Your task to perform on an android device: turn smart compose on in the gmail app Image 0: 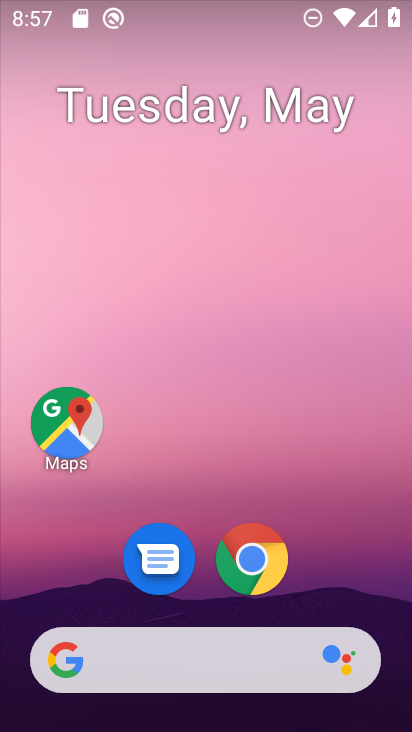
Step 0: drag from (217, 582) to (284, 4)
Your task to perform on an android device: turn smart compose on in the gmail app Image 1: 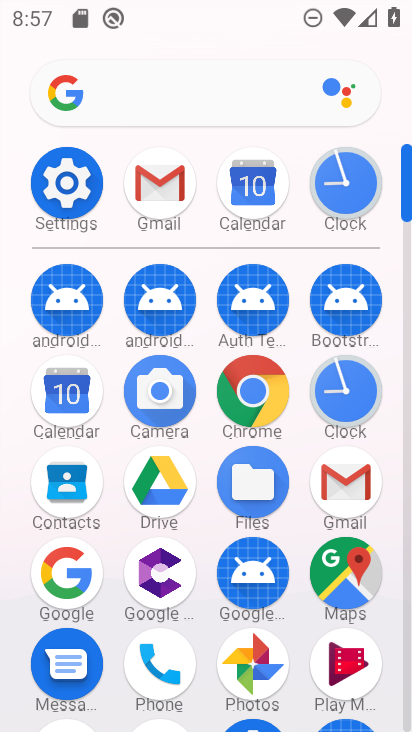
Step 1: click (171, 190)
Your task to perform on an android device: turn smart compose on in the gmail app Image 2: 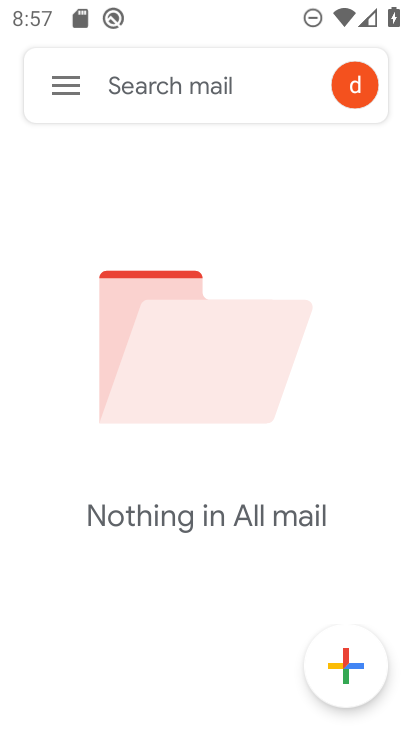
Step 2: click (50, 86)
Your task to perform on an android device: turn smart compose on in the gmail app Image 3: 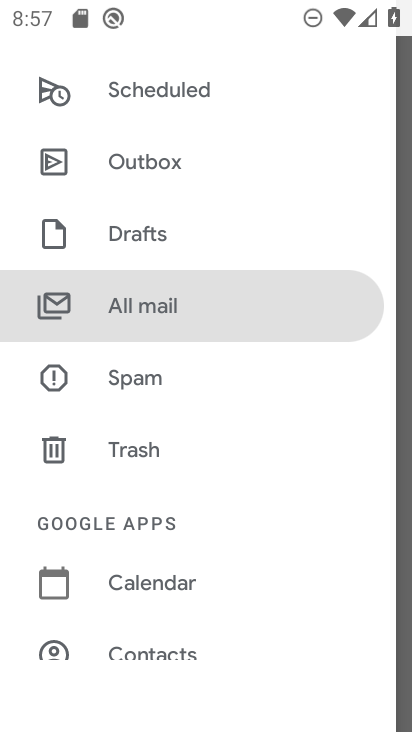
Step 3: drag from (220, 608) to (303, 132)
Your task to perform on an android device: turn smart compose on in the gmail app Image 4: 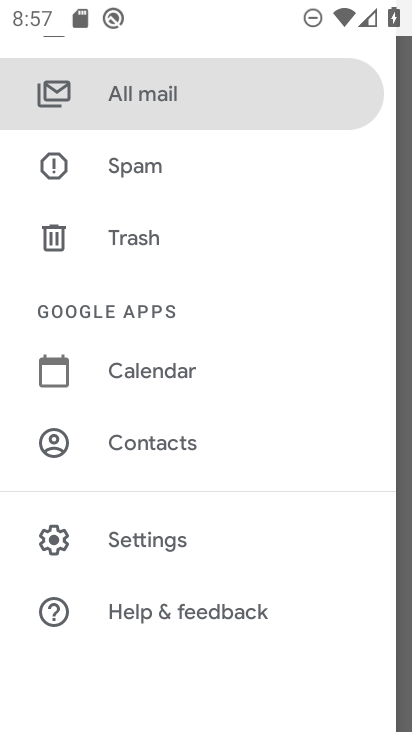
Step 4: click (144, 537)
Your task to perform on an android device: turn smart compose on in the gmail app Image 5: 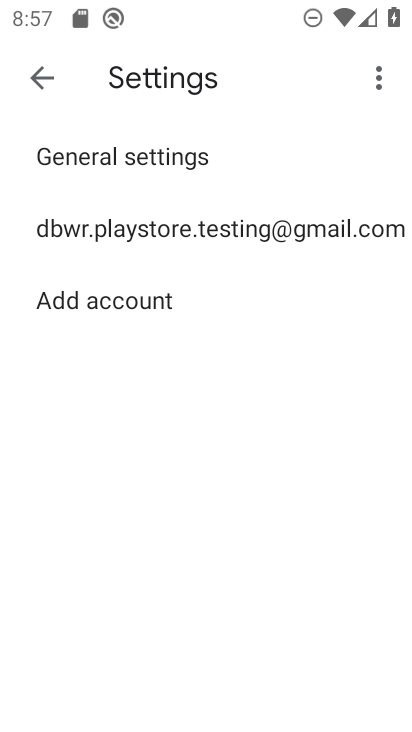
Step 5: drag from (199, 597) to (296, 270)
Your task to perform on an android device: turn smart compose on in the gmail app Image 6: 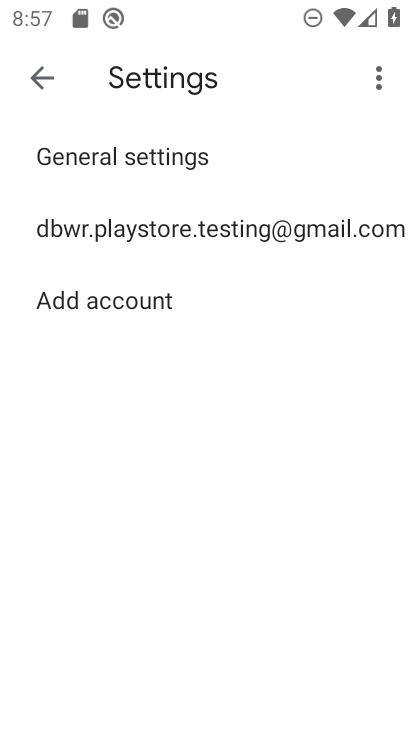
Step 6: click (270, 225)
Your task to perform on an android device: turn smart compose on in the gmail app Image 7: 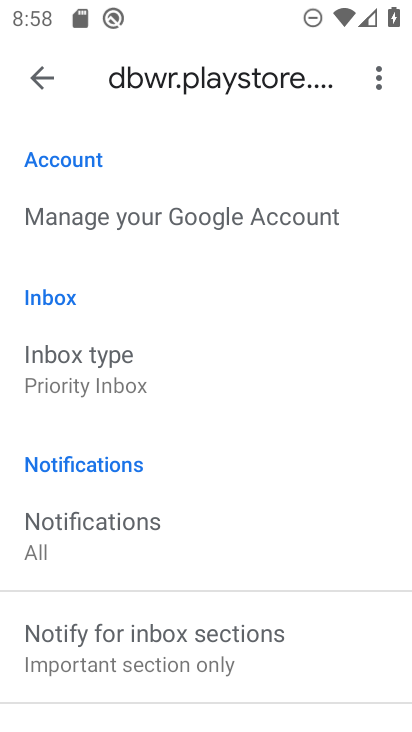
Step 7: task complete